Your task to perform on an android device: Open calendar and show me the second week of next month Image 0: 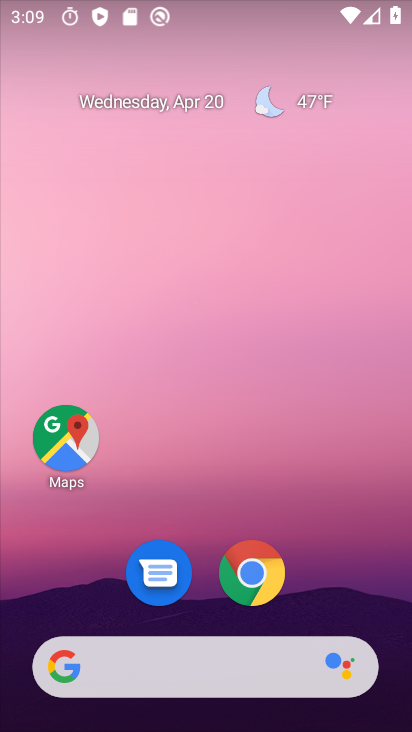
Step 0: drag from (207, 698) to (207, 172)
Your task to perform on an android device: Open calendar and show me the second week of next month Image 1: 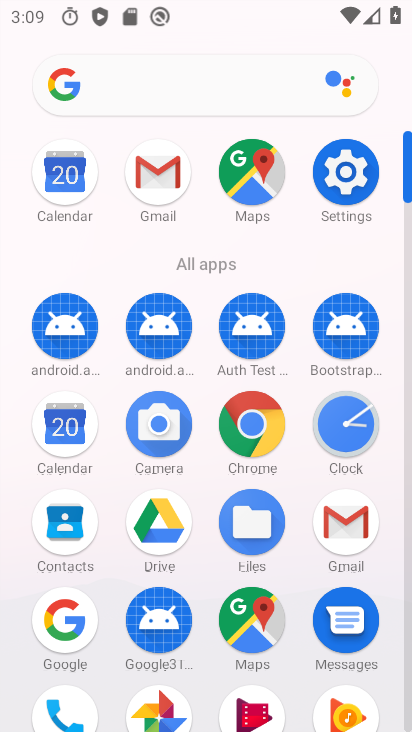
Step 1: click (65, 425)
Your task to perform on an android device: Open calendar and show me the second week of next month Image 2: 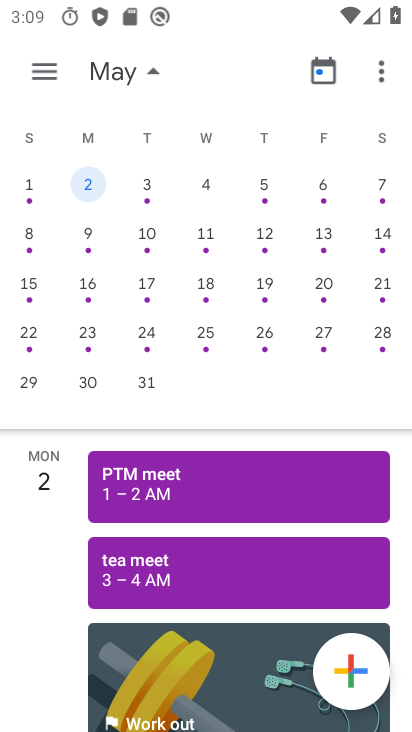
Step 2: click (88, 234)
Your task to perform on an android device: Open calendar and show me the second week of next month Image 3: 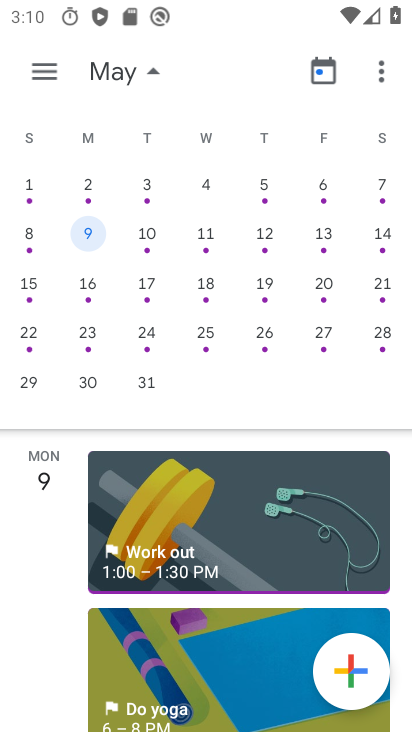
Step 3: task complete